Your task to perform on an android device: What's the weather today? Image 0: 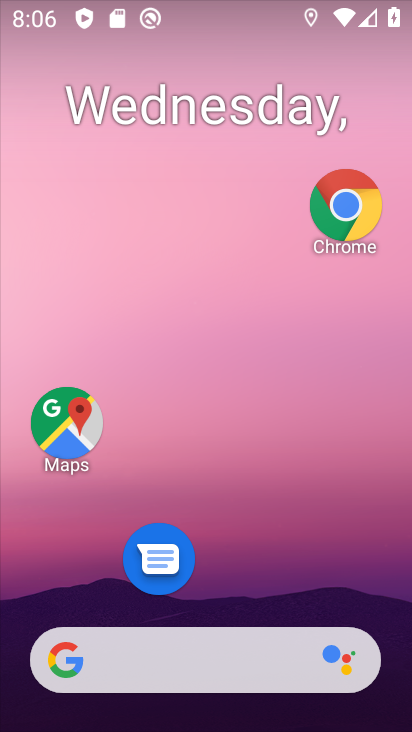
Step 0: drag from (198, 608) to (219, 50)
Your task to perform on an android device: What's the weather today? Image 1: 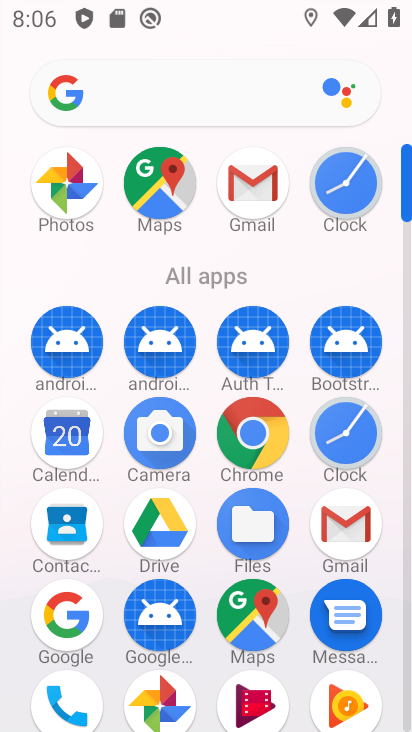
Step 1: drag from (200, 672) to (212, 191)
Your task to perform on an android device: What's the weather today? Image 2: 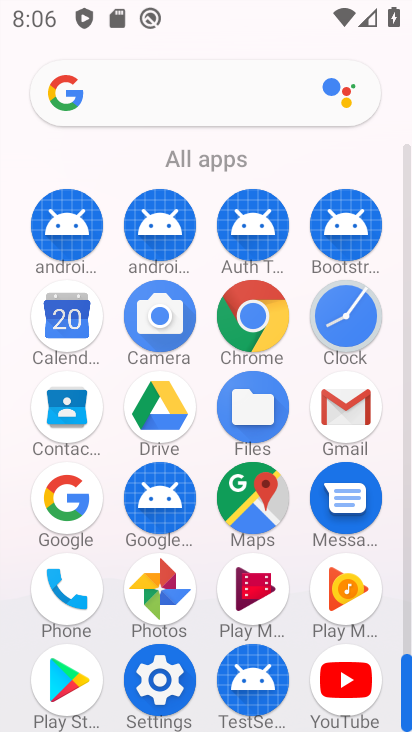
Step 2: click (256, 305)
Your task to perform on an android device: What's the weather today? Image 3: 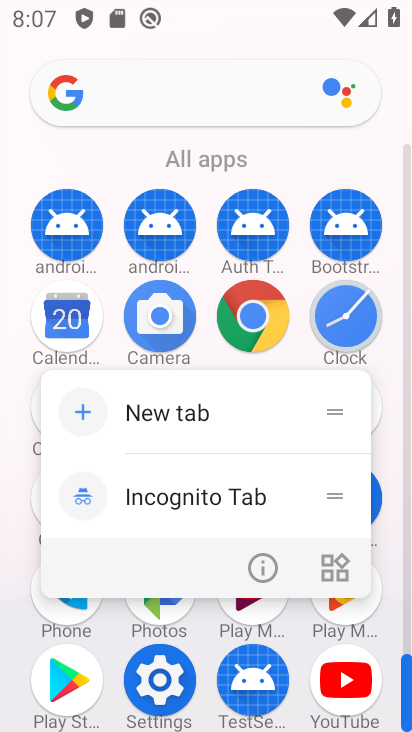
Step 3: click (254, 553)
Your task to perform on an android device: What's the weather today? Image 4: 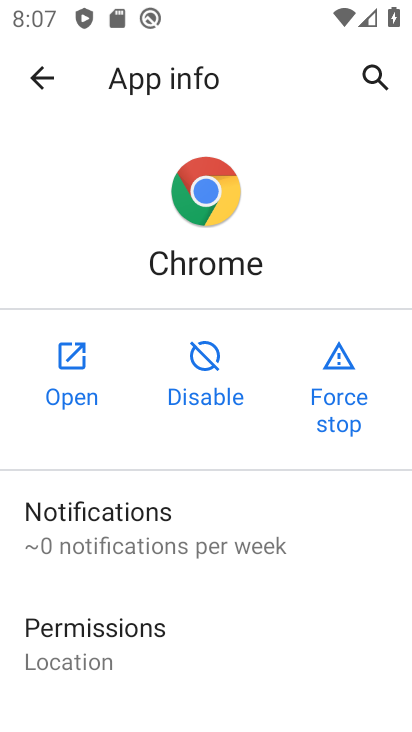
Step 4: click (56, 369)
Your task to perform on an android device: What's the weather today? Image 5: 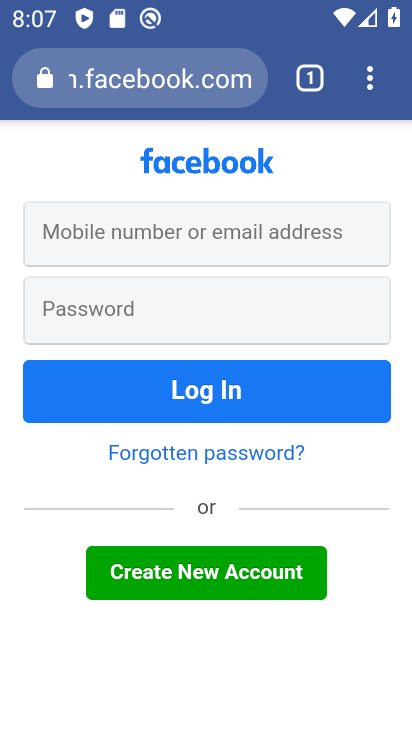
Step 5: click (358, 82)
Your task to perform on an android device: What's the weather today? Image 6: 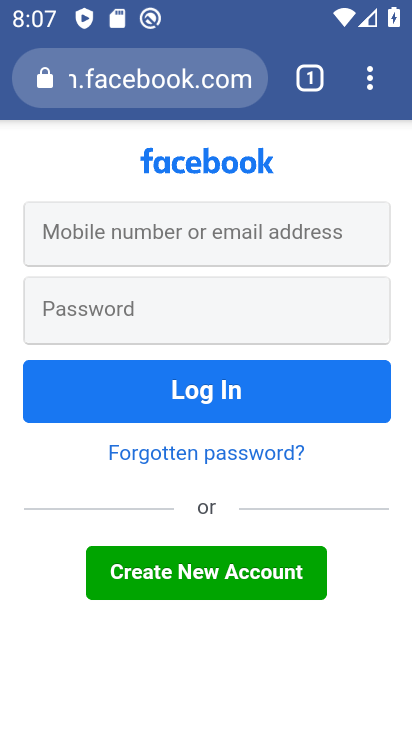
Step 6: click (101, 71)
Your task to perform on an android device: What's the weather today? Image 7: 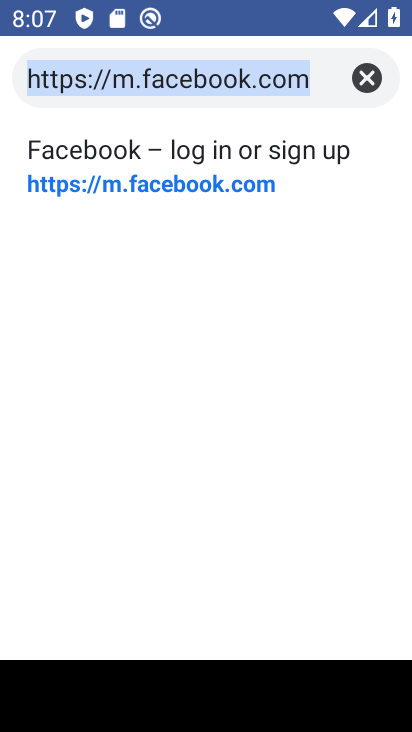
Step 7: click (361, 71)
Your task to perform on an android device: What's the weather today? Image 8: 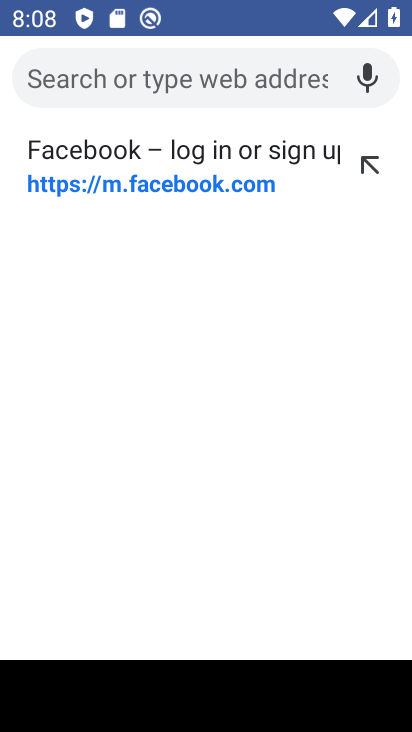
Step 8: type "weather today"
Your task to perform on an android device: What's the weather today? Image 9: 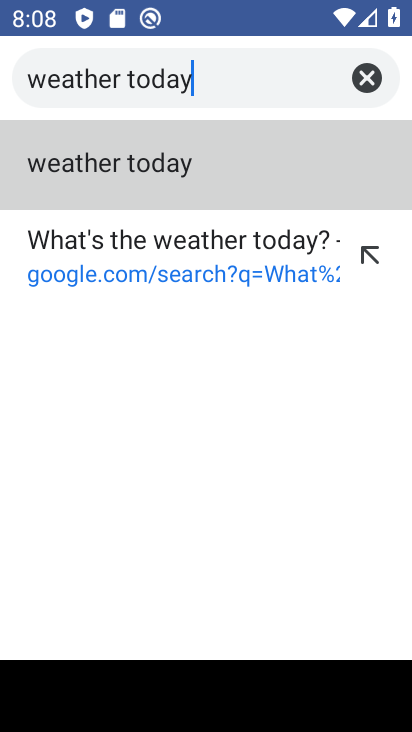
Step 9: click (101, 159)
Your task to perform on an android device: What's the weather today? Image 10: 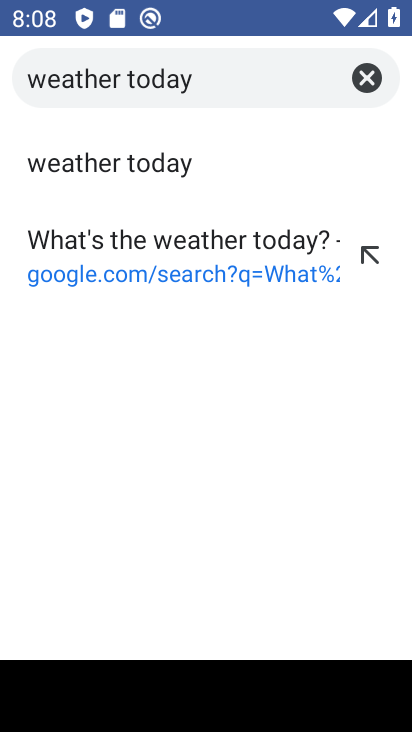
Step 10: click (241, 171)
Your task to perform on an android device: What's the weather today? Image 11: 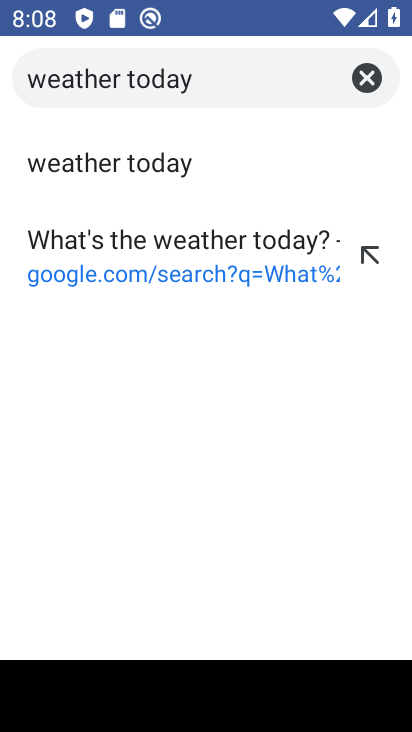
Step 11: click (186, 169)
Your task to perform on an android device: What's the weather today? Image 12: 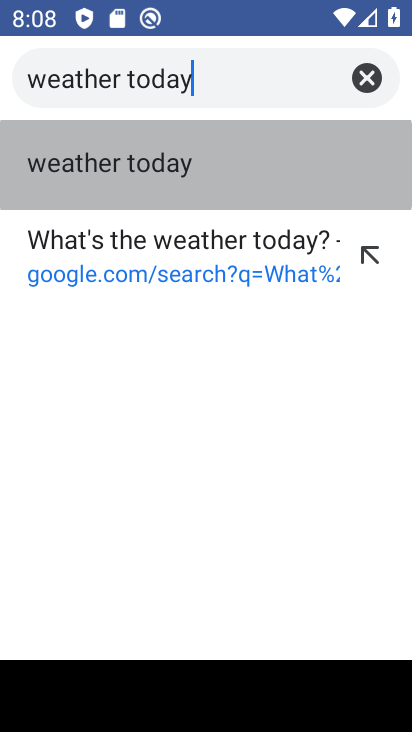
Step 12: click (193, 167)
Your task to perform on an android device: What's the weather today? Image 13: 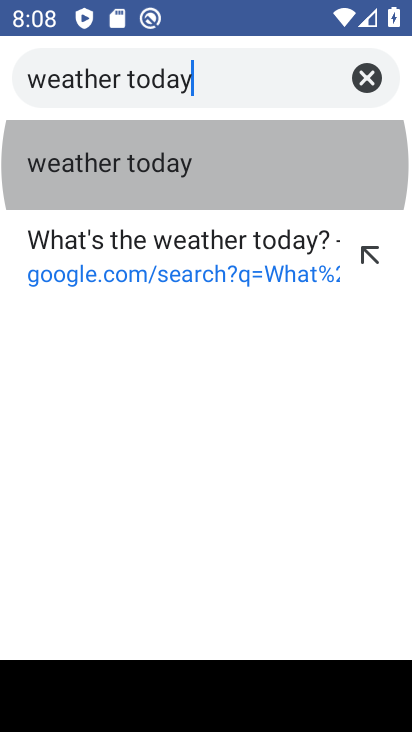
Step 13: click (195, 167)
Your task to perform on an android device: What's the weather today? Image 14: 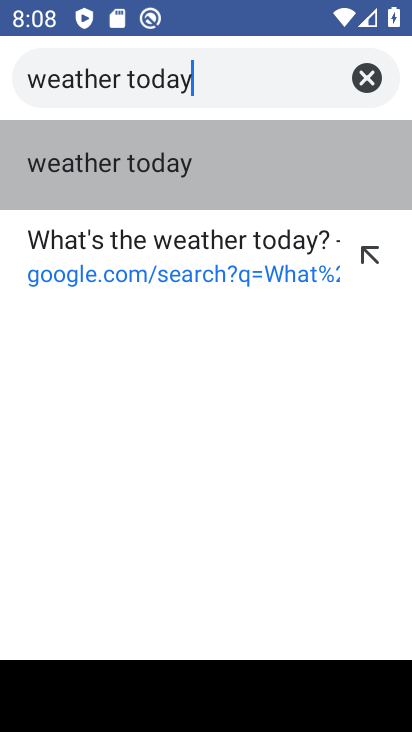
Step 14: click (196, 167)
Your task to perform on an android device: What's the weather today? Image 15: 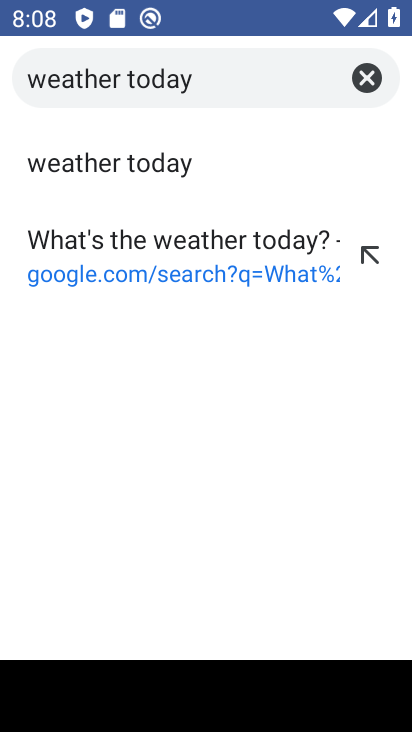
Step 15: click (217, 162)
Your task to perform on an android device: What's the weather today? Image 16: 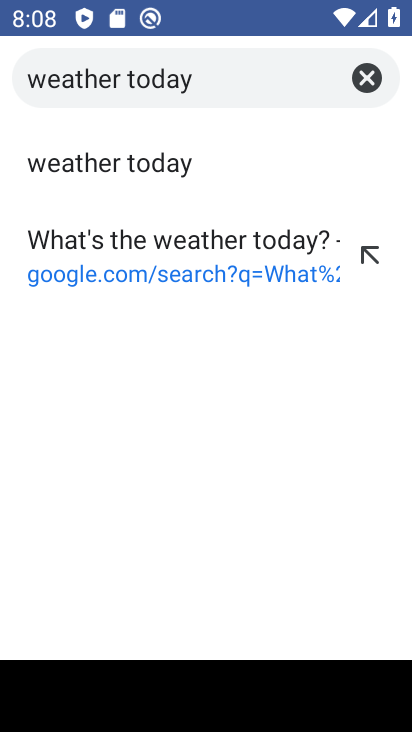
Step 16: task complete